Your task to perform on an android device: clear history in the chrome app Image 0: 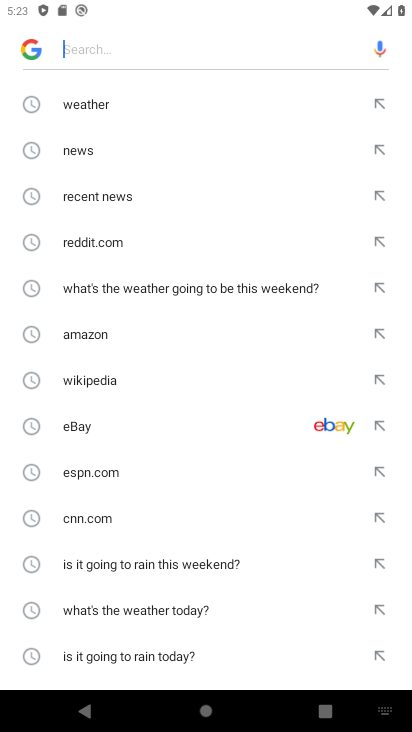
Step 0: press home button
Your task to perform on an android device: clear history in the chrome app Image 1: 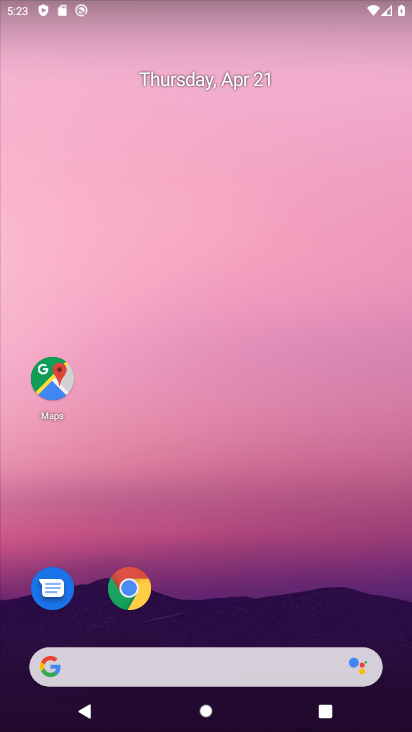
Step 1: click (130, 601)
Your task to perform on an android device: clear history in the chrome app Image 2: 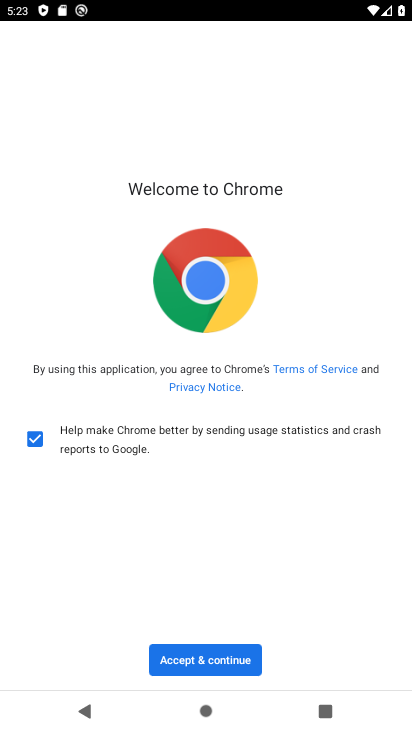
Step 2: click (216, 671)
Your task to perform on an android device: clear history in the chrome app Image 3: 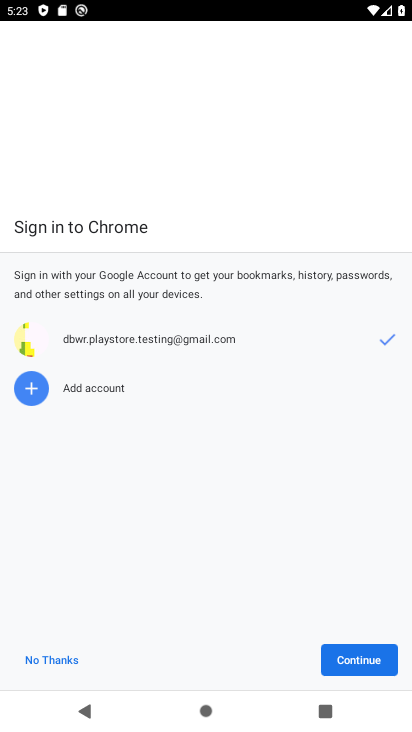
Step 3: click (342, 665)
Your task to perform on an android device: clear history in the chrome app Image 4: 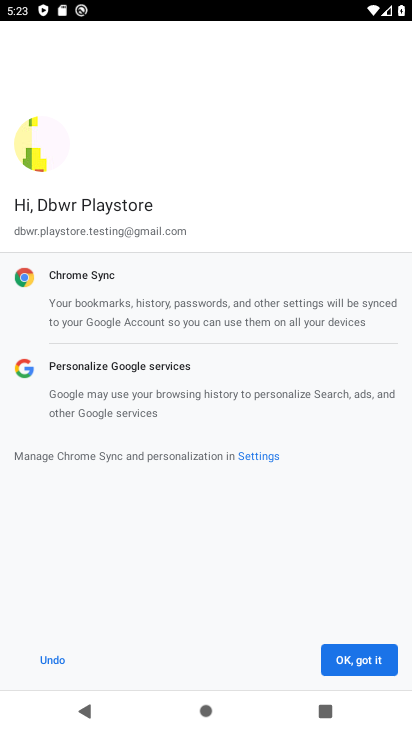
Step 4: click (335, 653)
Your task to perform on an android device: clear history in the chrome app Image 5: 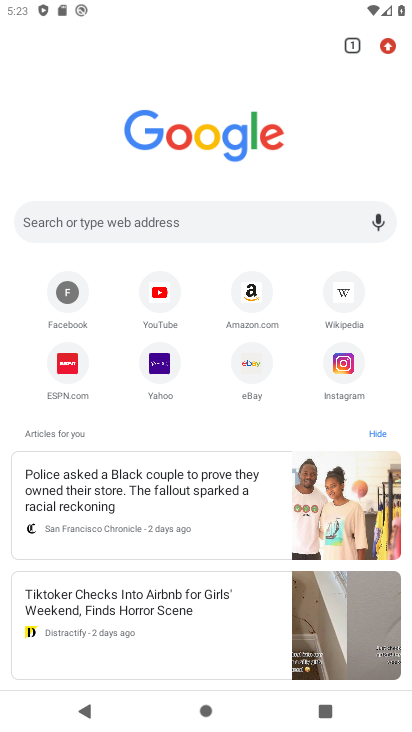
Step 5: click (384, 44)
Your task to perform on an android device: clear history in the chrome app Image 6: 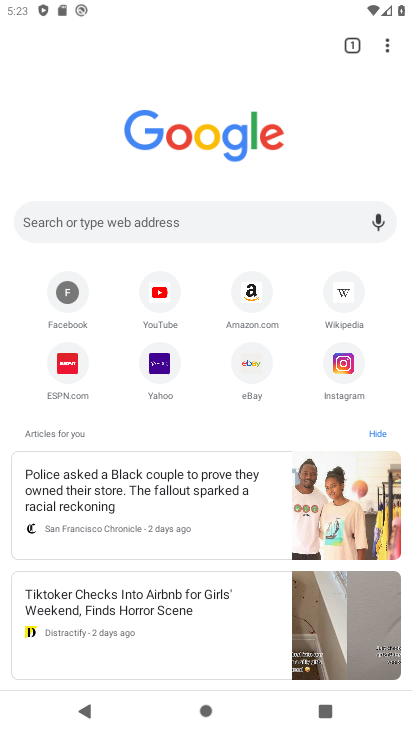
Step 6: click (385, 50)
Your task to perform on an android device: clear history in the chrome app Image 7: 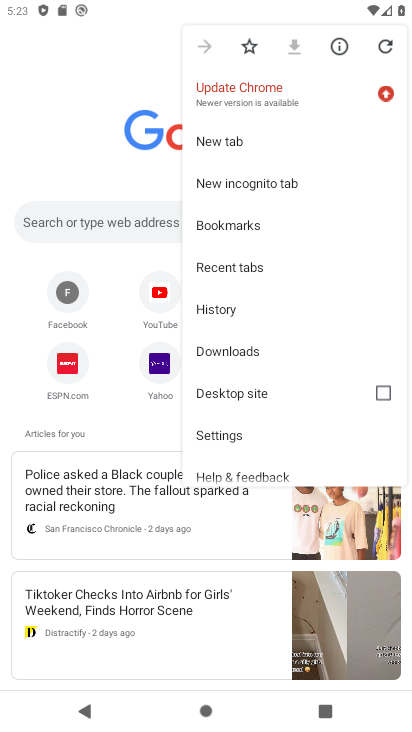
Step 7: click (214, 300)
Your task to perform on an android device: clear history in the chrome app Image 8: 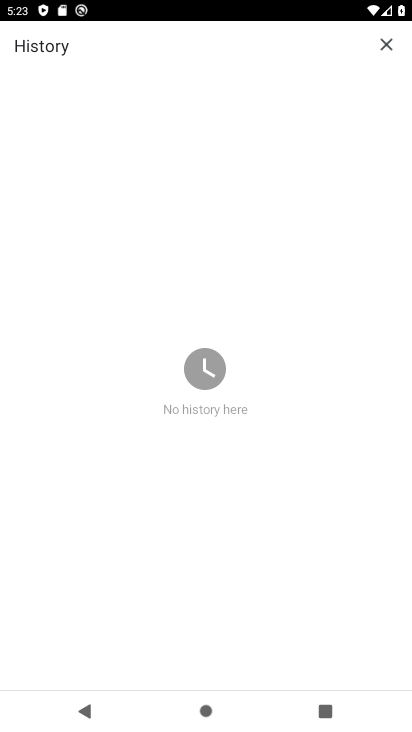
Step 8: task complete